Your task to perform on an android device: Open calendar and show me the third week of next month Image 0: 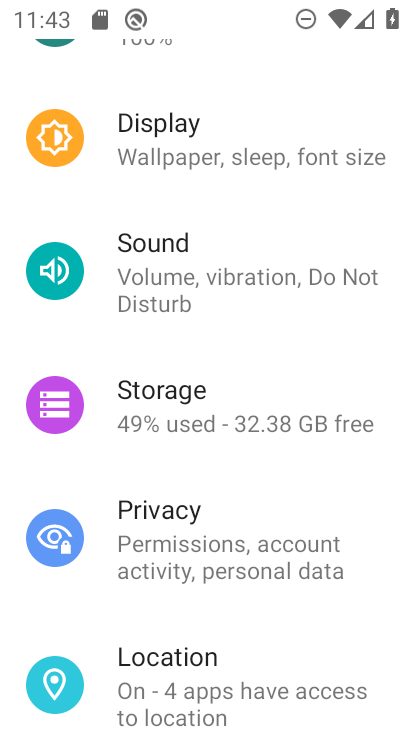
Step 0: press home button
Your task to perform on an android device: Open calendar and show me the third week of next month Image 1: 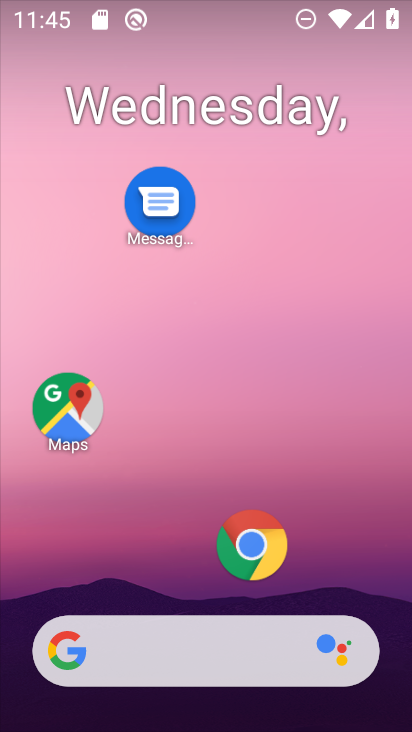
Step 1: drag from (173, 574) to (226, 198)
Your task to perform on an android device: Open calendar and show me the third week of next month Image 2: 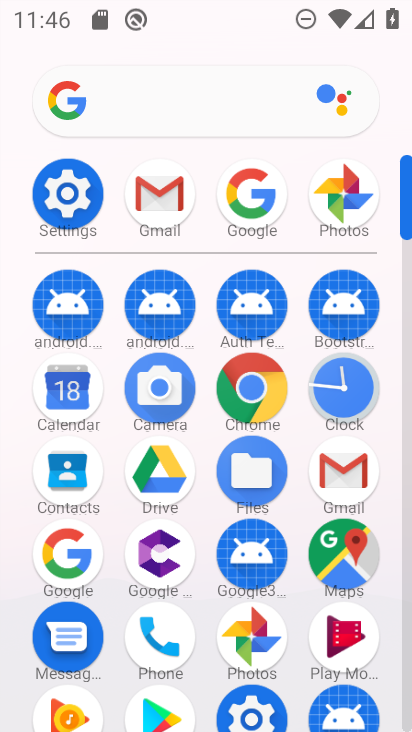
Step 2: click (71, 414)
Your task to perform on an android device: Open calendar and show me the third week of next month Image 3: 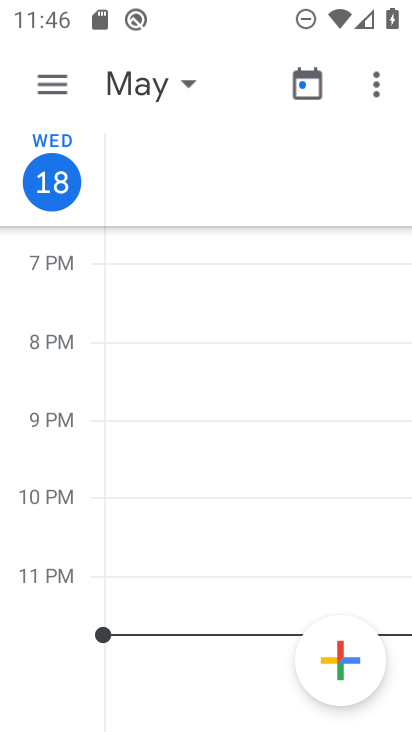
Step 3: click (177, 82)
Your task to perform on an android device: Open calendar and show me the third week of next month Image 4: 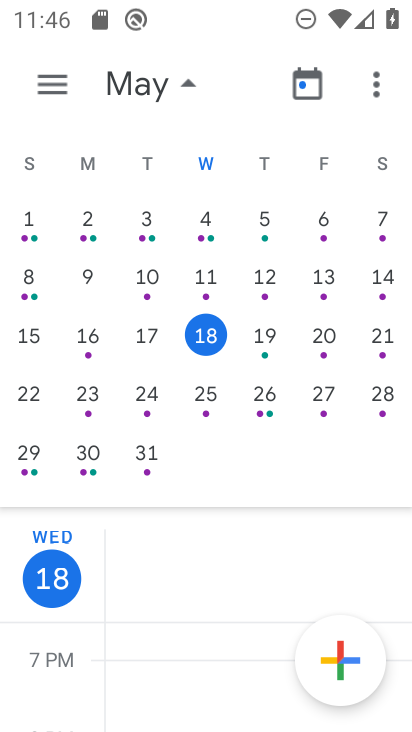
Step 4: drag from (335, 293) to (5, 286)
Your task to perform on an android device: Open calendar and show me the third week of next month Image 5: 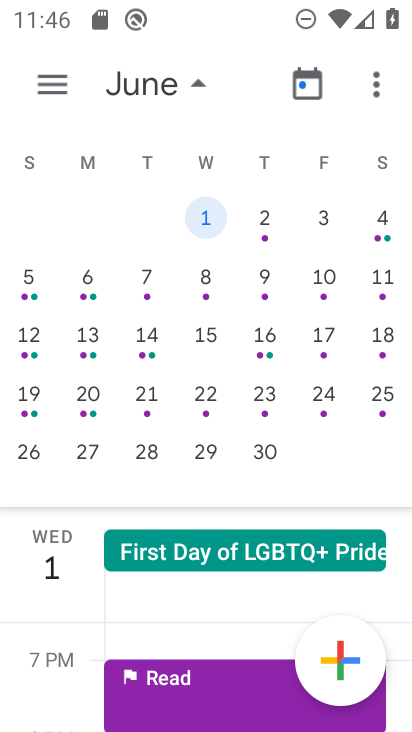
Step 5: click (29, 324)
Your task to perform on an android device: Open calendar and show me the third week of next month Image 6: 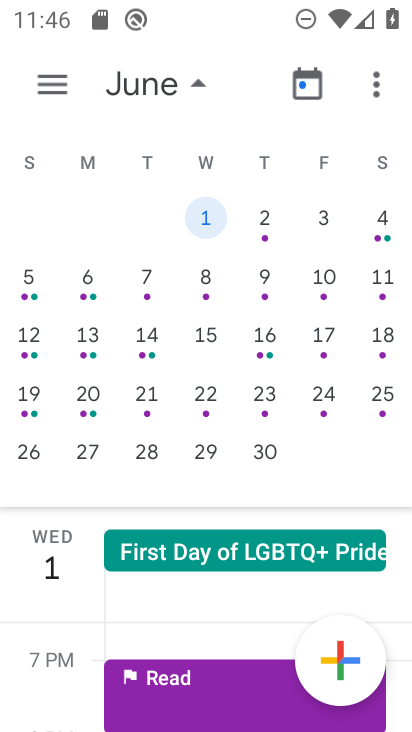
Step 6: task complete